Your task to perform on an android device: Open the map Image 0: 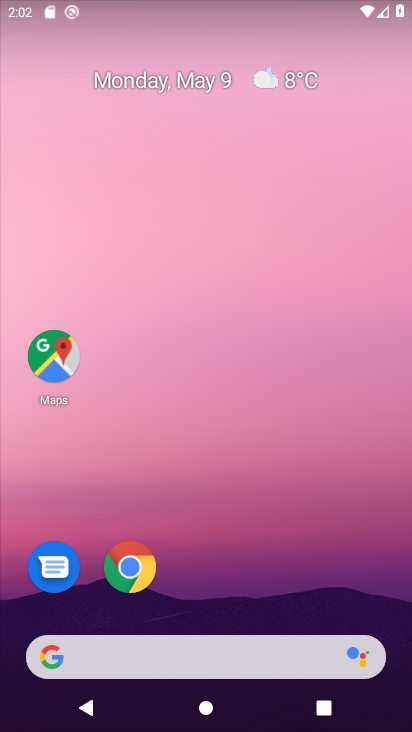
Step 0: drag from (283, 443) to (274, 209)
Your task to perform on an android device: Open the map Image 1: 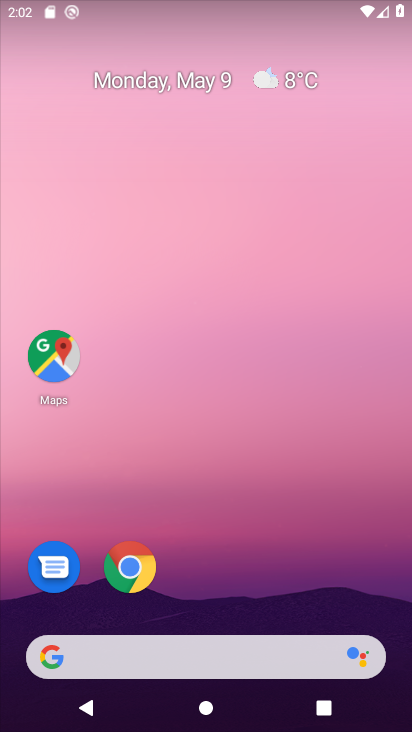
Step 1: click (327, 310)
Your task to perform on an android device: Open the map Image 2: 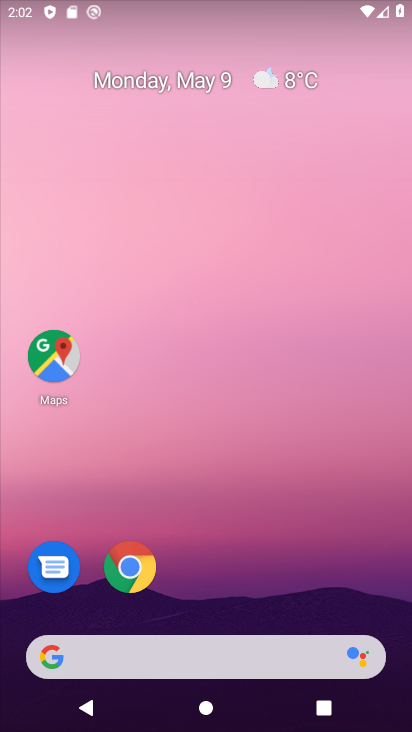
Step 2: click (44, 344)
Your task to perform on an android device: Open the map Image 3: 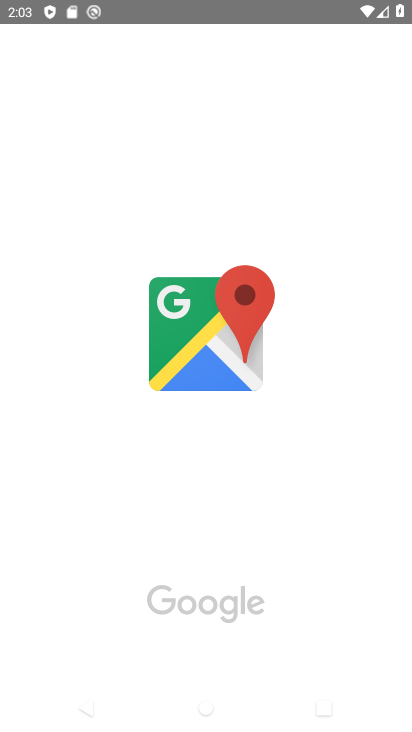
Step 3: drag from (32, 272) to (144, 326)
Your task to perform on an android device: Open the map Image 4: 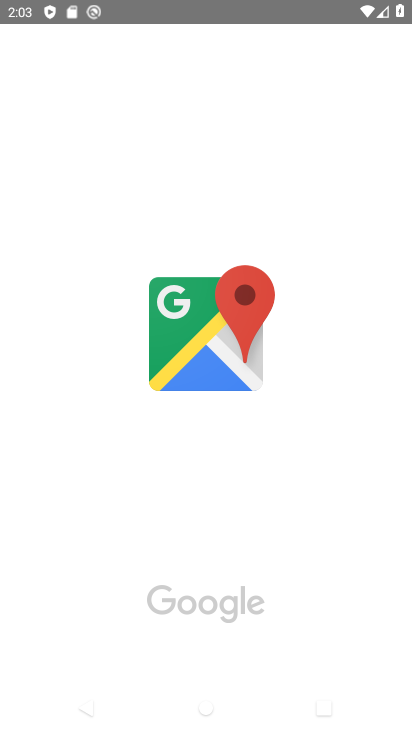
Step 4: click (153, 334)
Your task to perform on an android device: Open the map Image 5: 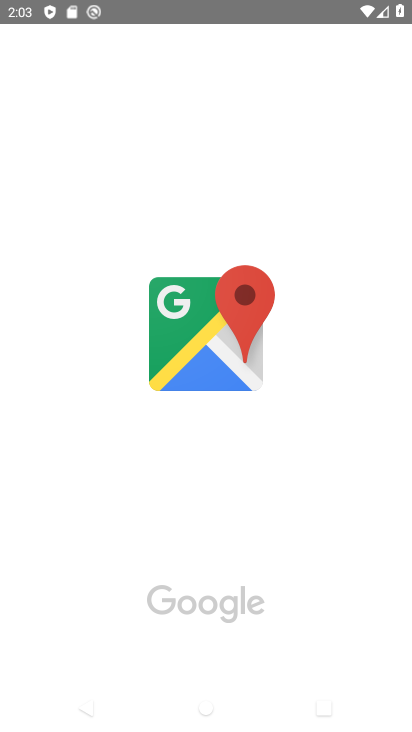
Step 5: click (157, 307)
Your task to perform on an android device: Open the map Image 6: 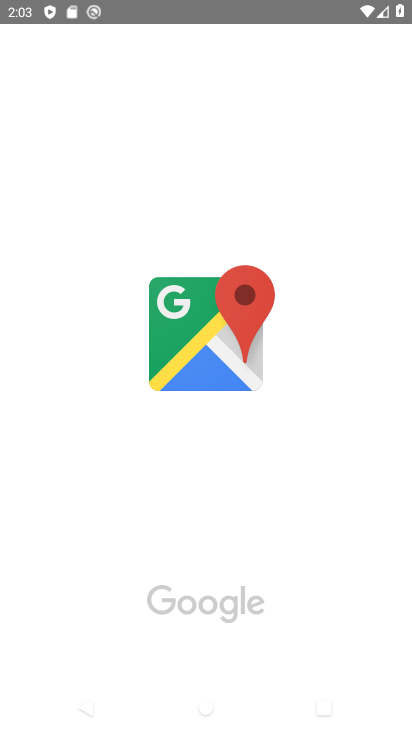
Step 6: task complete